Your task to perform on an android device: check android version Image 0: 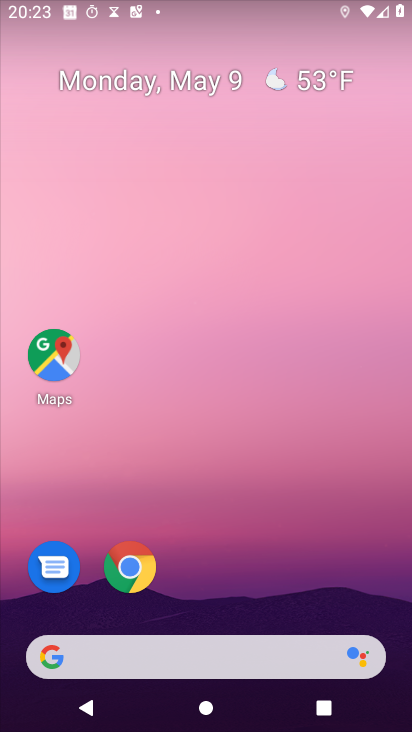
Step 0: drag from (223, 610) to (308, 0)
Your task to perform on an android device: check android version Image 1: 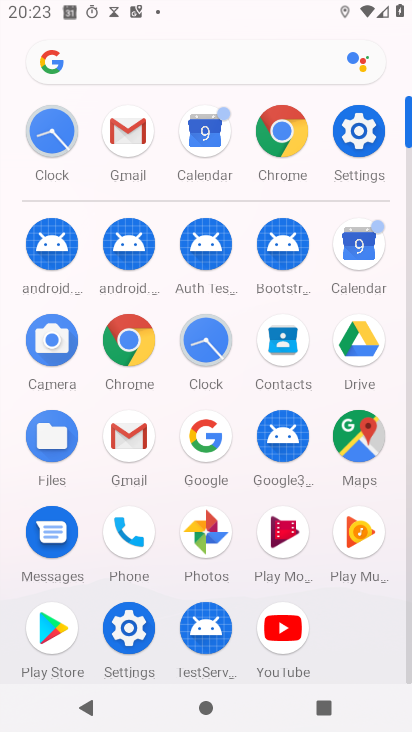
Step 1: click (365, 128)
Your task to perform on an android device: check android version Image 2: 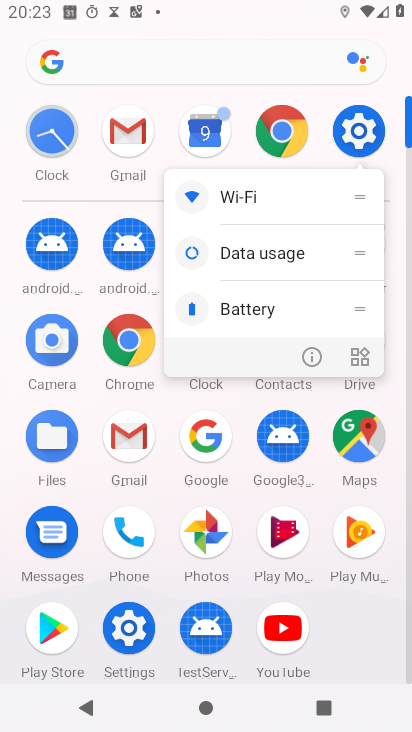
Step 2: click (365, 128)
Your task to perform on an android device: check android version Image 3: 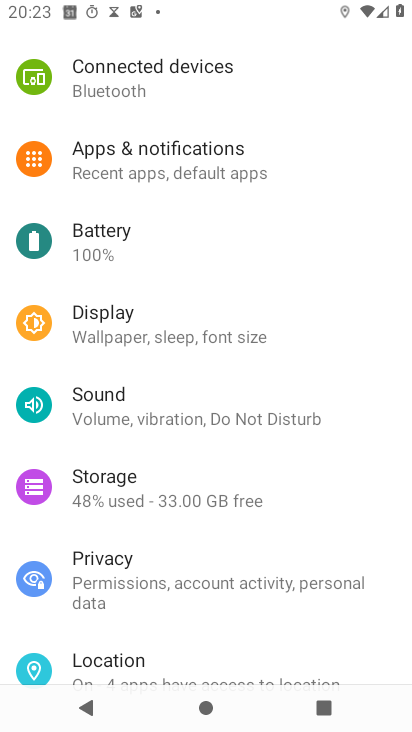
Step 3: drag from (240, 463) to (215, 323)
Your task to perform on an android device: check android version Image 4: 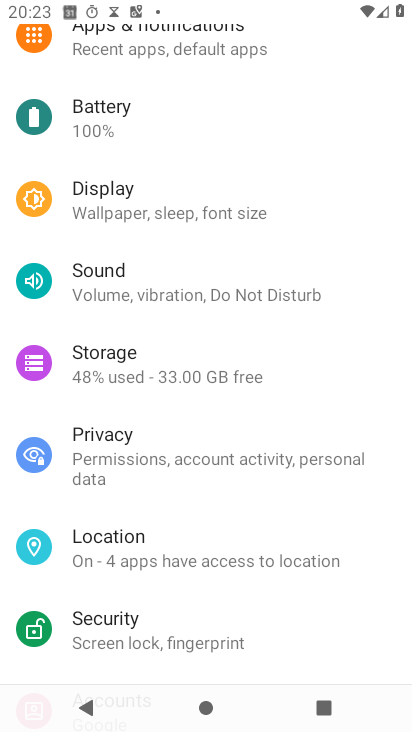
Step 4: drag from (190, 560) to (170, 477)
Your task to perform on an android device: check android version Image 5: 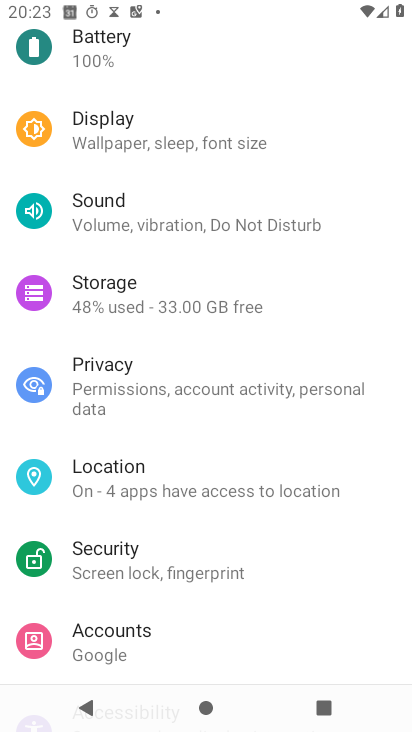
Step 5: drag from (161, 564) to (161, 451)
Your task to perform on an android device: check android version Image 6: 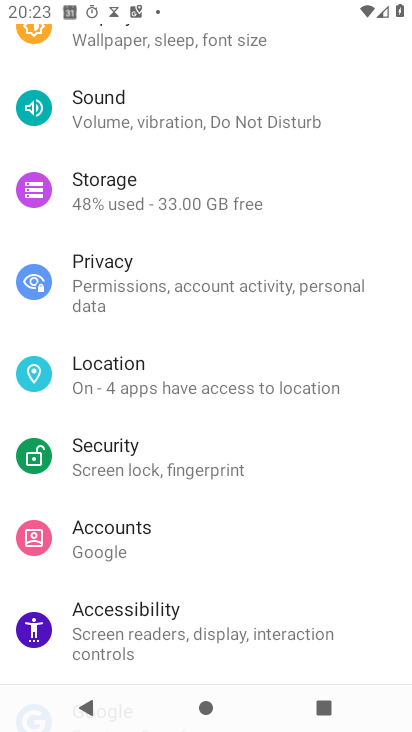
Step 6: drag from (140, 585) to (102, 469)
Your task to perform on an android device: check android version Image 7: 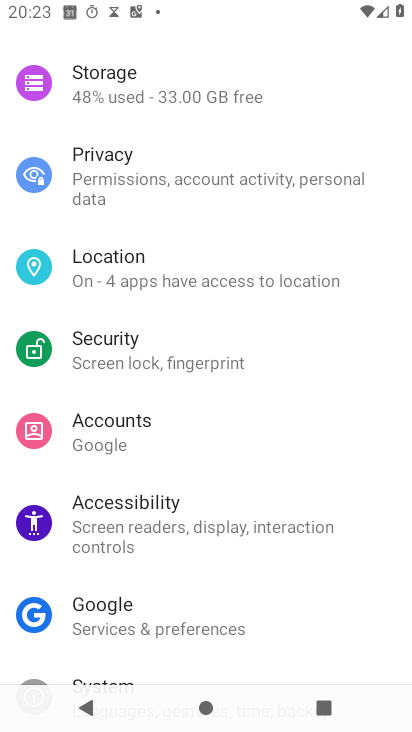
Step 7: drag from (91, 601) to (91, 525)
Your task to perform on an android device: check android version Image 8: 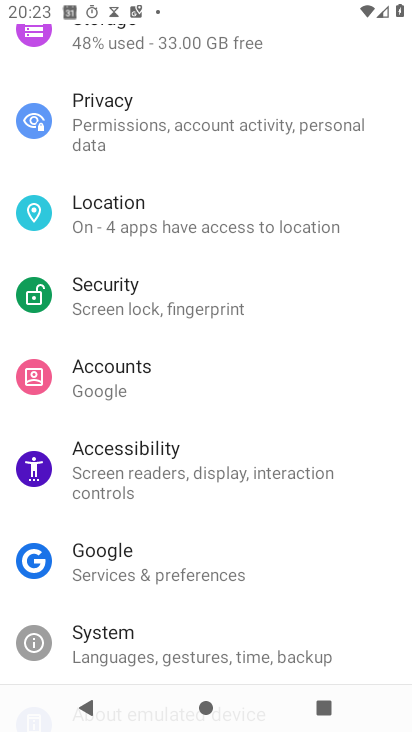
Step 8: drag from (99, 622) to (104, 526)
Your task to perform on an android device: check android version Image 9: 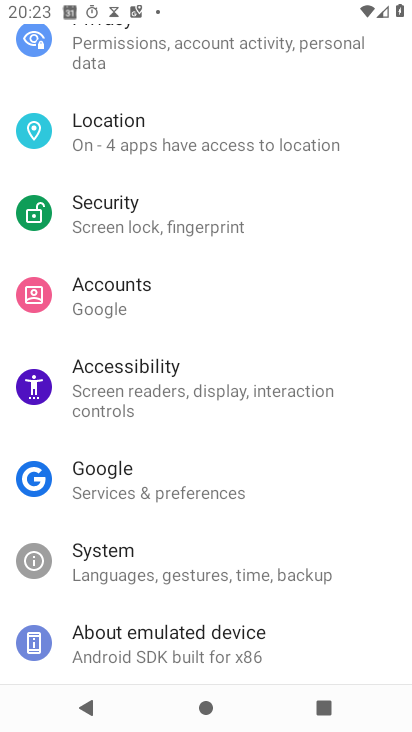
Step 9: click (111, 654)
Your task to perform on an android device: check android version Image 10: 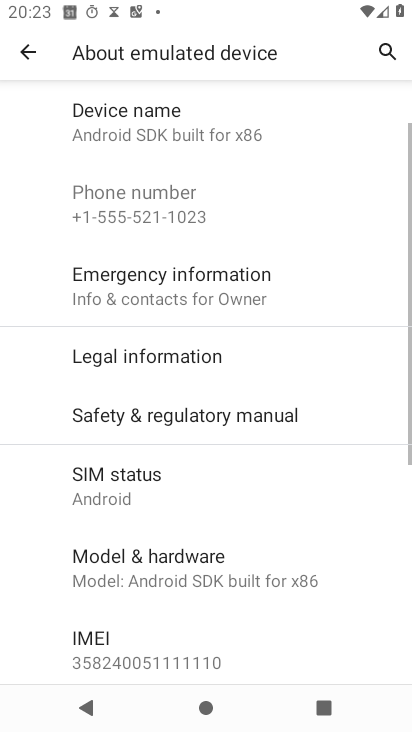
Step 10: drag from (100, 638) to (97, 552)
Your task to perform on an android device: check android version Image 11: 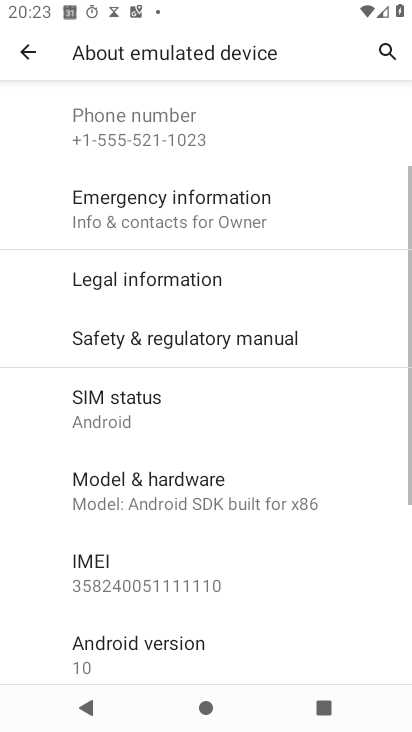
Step 11: click (91, 646)
Your task to perform on an android device: check android version Image 12: 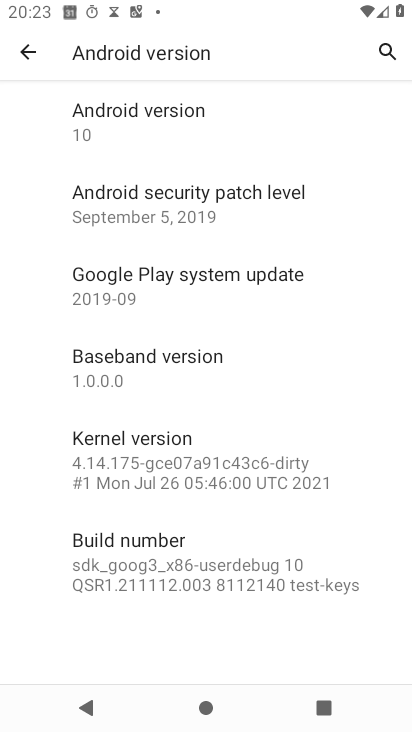
Step 12: click (202, 103)
Your task to perform on an android device: check android version Image 13: 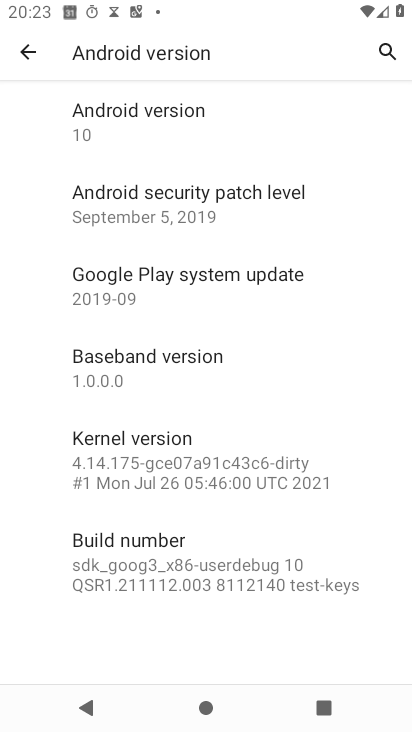
Step 13: task complete